Your task to perform on an android device: choose inbox layout in the gmail app Image 0: 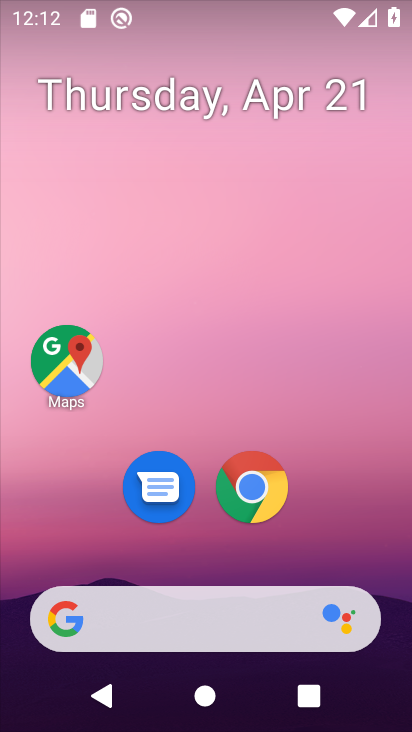
Step 0: drag from (215, 553) to (362, 94)
Your task to perform on an android device: choose inbox layout in the gmail app Image 1: 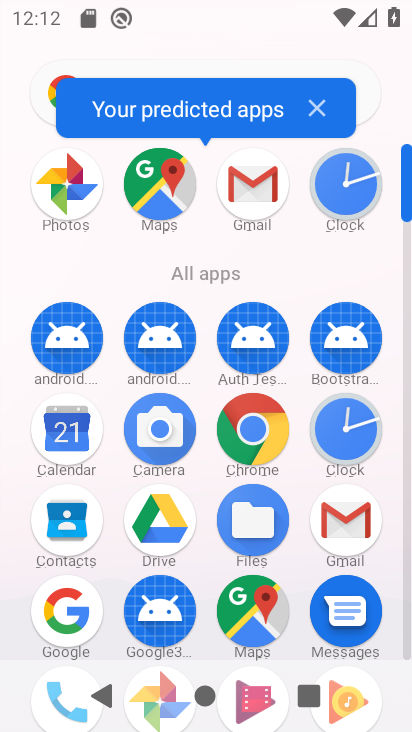
Step 1: click (332, 521)
Your task to perform on an android device: choose inbox layout in the gmail app Image 2: 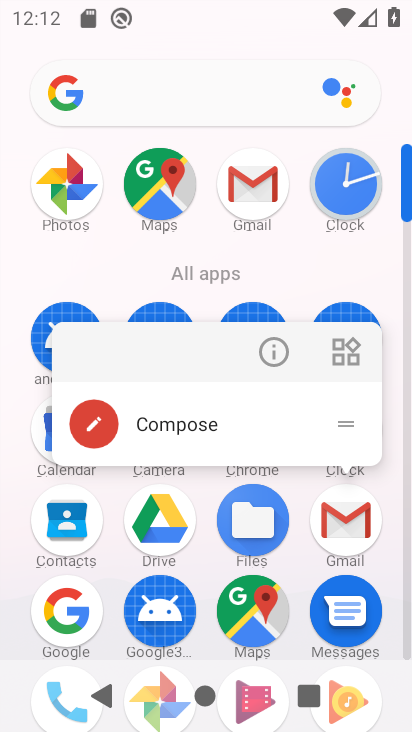
Step 2: click (354, 528)
Your task to perform on an android device: choose inbox layout in the gmail app Image 3: 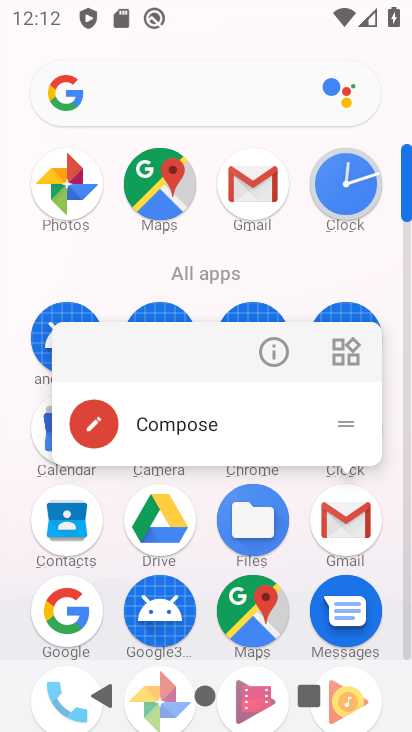
Step 3: click (357, 517)
Your task to perform on an android device: choose inbox layout in the gmail app Image 4: 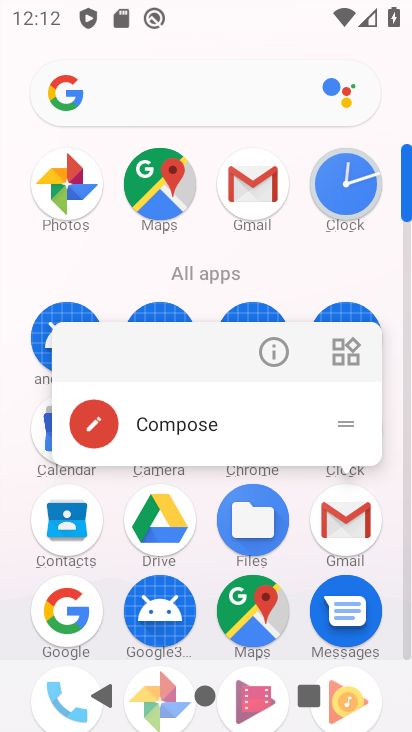
Step 4: click (353, 522)
Your task to perform on an android device: choose inbox layout in the gmail app Image 5: 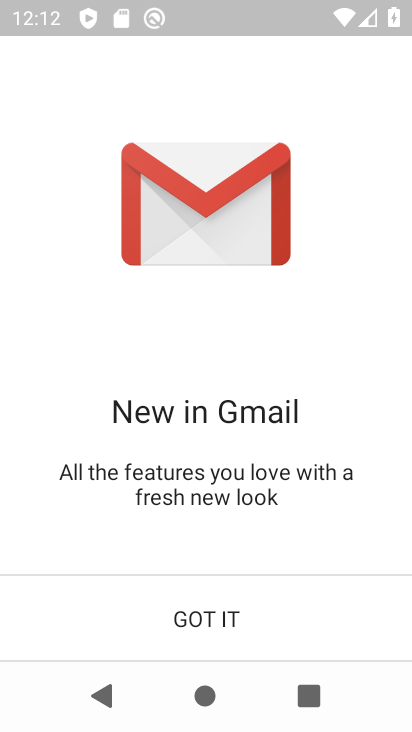
Step 5: click (228, 632)
Your task to perform on an android device: choose inbox layout in the gmail app Image 6: 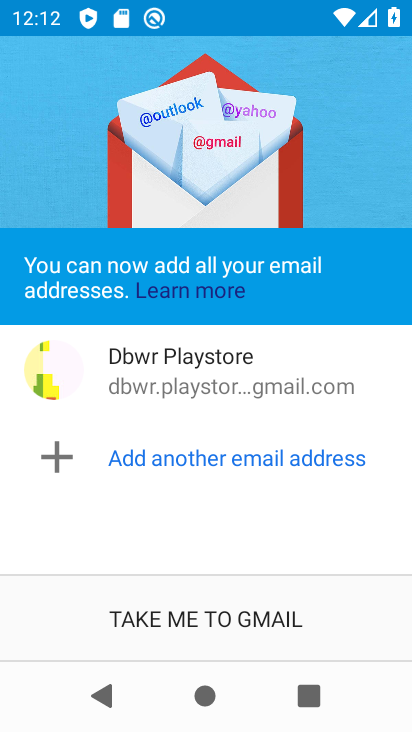
Step 6: click (228, 629)
Your task to perform on an android device: choose inbox layout in the gmail app Image 7: 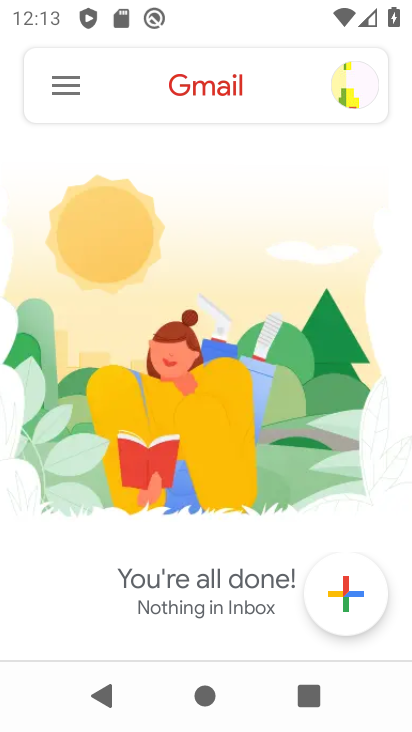
Step 7: click (95, 75)
Your task to perform on an android device: choose inbox layout in the gmail app Image 8: 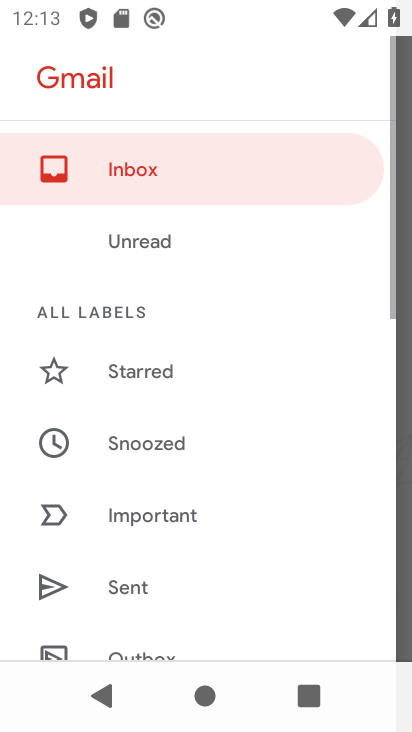
Step 8: drag from (149, 591) to (217, 261)
Your task to perform on an android device: choose inbox layout in the gmail app Image 9: 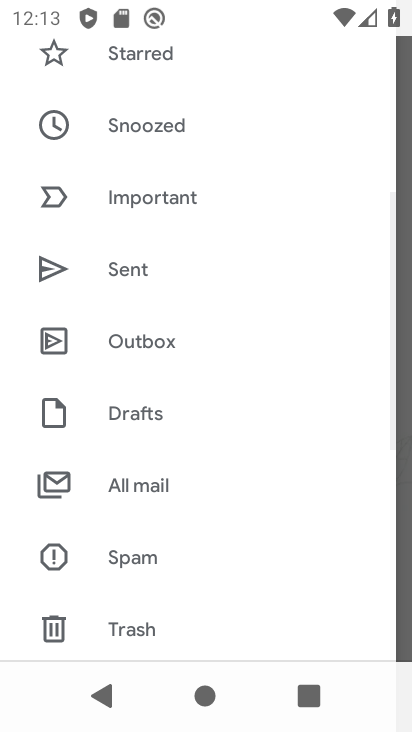
Step 9: drag from (196, 525) to (288, 157)
Your task to perform on an android device: choose inbox layout in the gmail app Image 10: 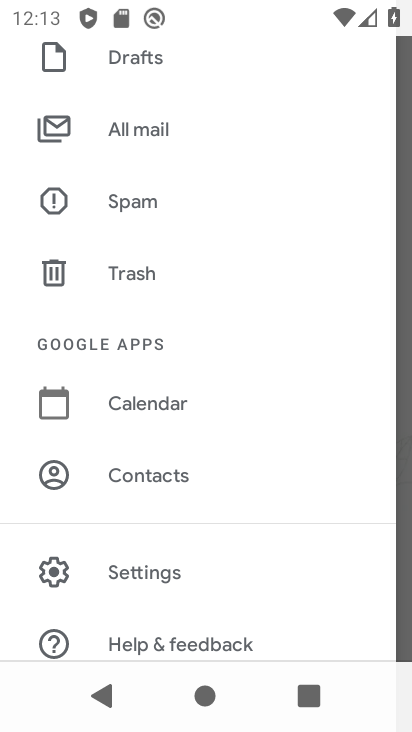
Step 10: click (194, 569)
Your task to perform on an android device: choose inbox layout in the gmail app Image 11: 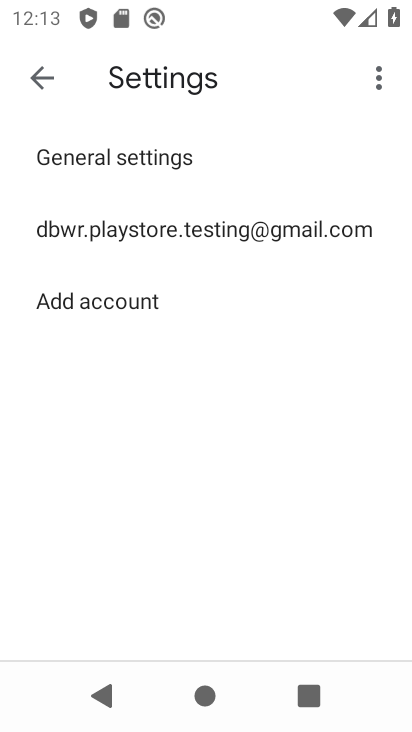
Step 11: click (283, 222)
Your task to perform on an android device: choose inbox layout in the gmail app Image 12: 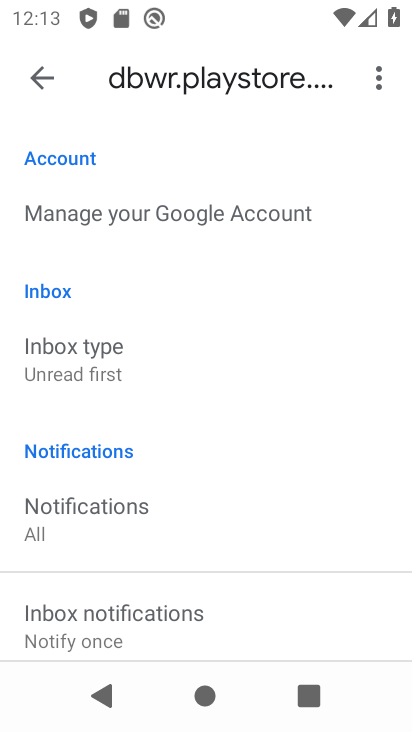
Step 12: click (151, 370)
Your task to perform on an android device: choose inbox layout in the gmail app Image 13: 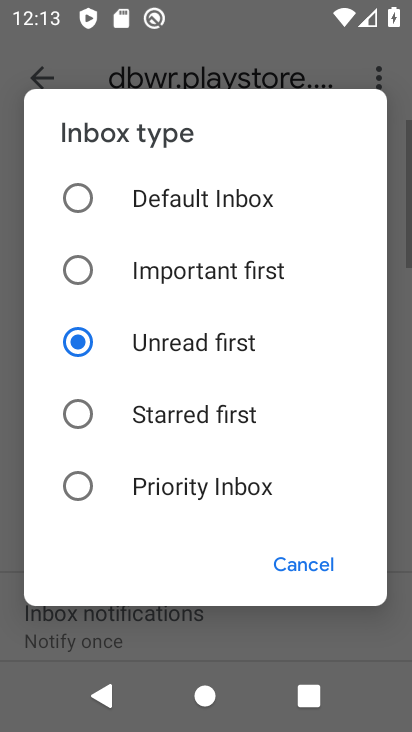
Step 13: click (208, 205)
Your task to perform on an android device: choose inbox layout in the gmail app Image 14: 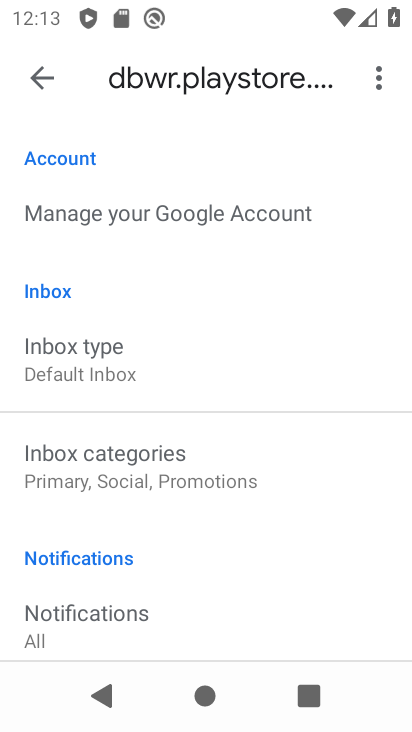
Step 14: task complete